Your task to perform on an android device: toggle show notifications on the lock screen Image 0: 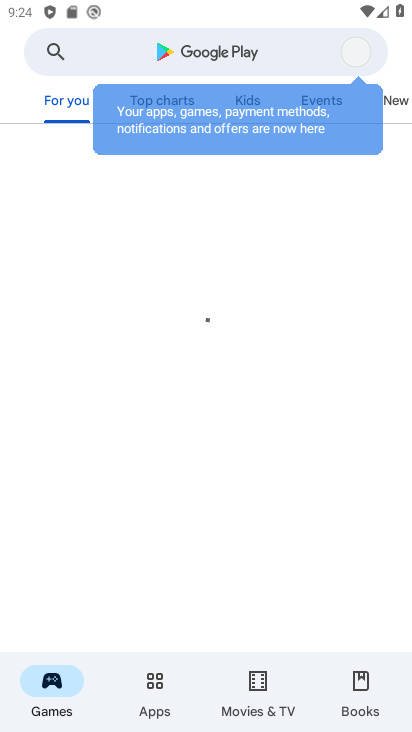
Step 0: press home button
Your task to perform on an android device: toggle show notifications on the lock screen Image 1: 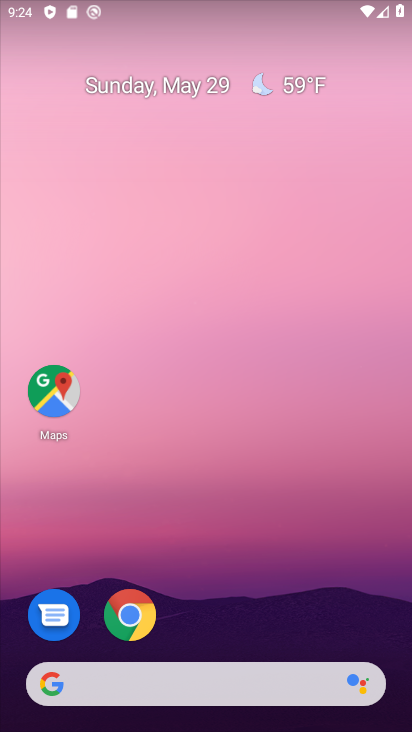
Step 1: drag from (235, 598) to (270, 125)
Your task to perform on an android device: toggle show notifications on the lock screen Image 2: 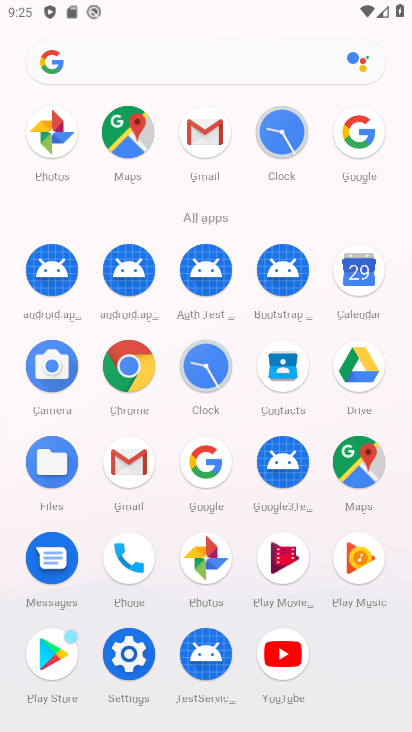
Step 2: click (129, 654)
Your task to perform on an android device: toggle show notifications on the lock screen Image 3: 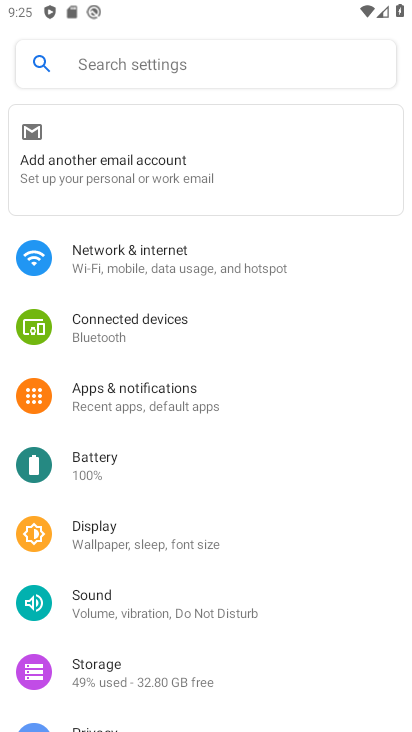
Step 3: click (150, 403)
Your task to perform on an android device: toggle show notifications on the lock screen Image 4: 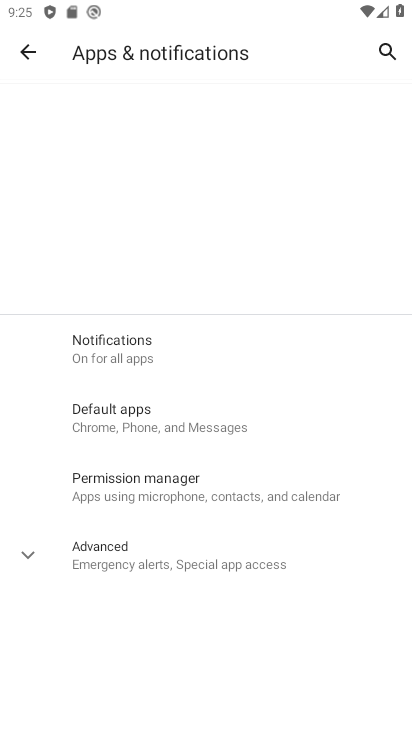
Step 4: click (131, 340)
Your task to perform on an android device: toggle show notifications on the lock screen Image 5: 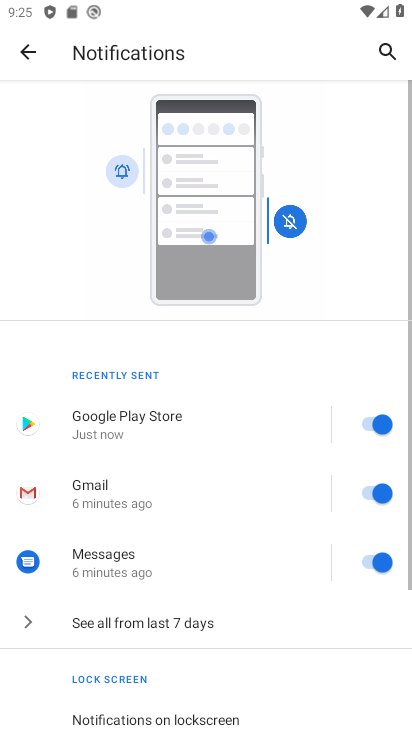
Step 5: drag from (215, 622) to (206, 257)
Your task to perform on an android device: toggle show notifications on the lock screen Image 6: 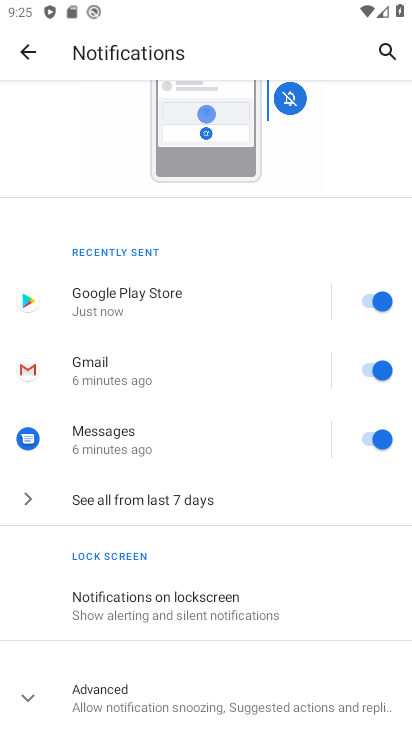
Step 6: click (189, 600)
Your task to perform on an android device: toggle show notifications on the lock screen Image 7: 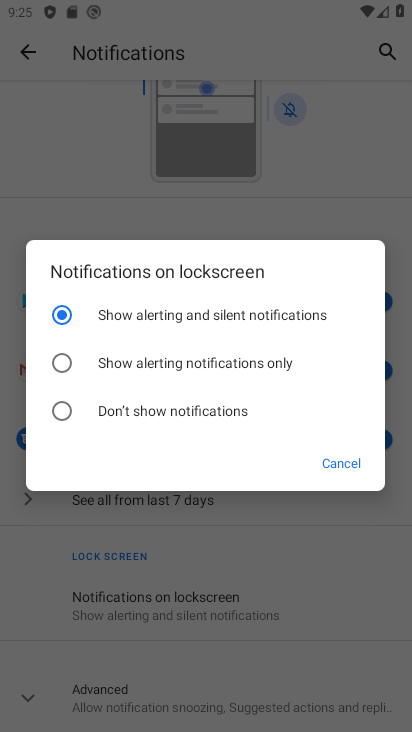
Step 7: click (69, 409)
Your task to perform on an android device: toggle show notifications on the lock screen Image 8: 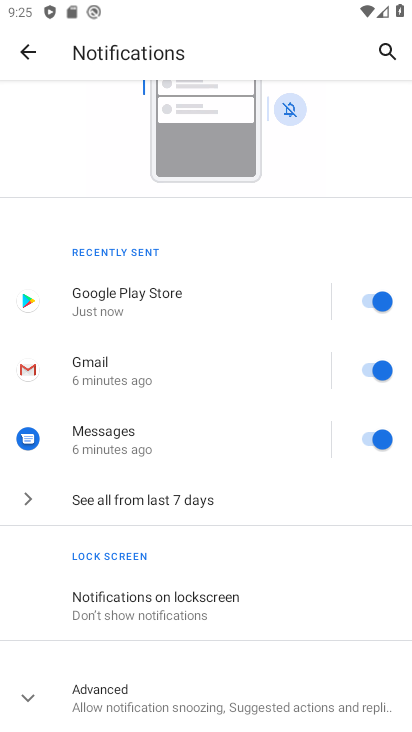
Step 8: task complete